Your task to perform on an android device: Open the map Image 0: 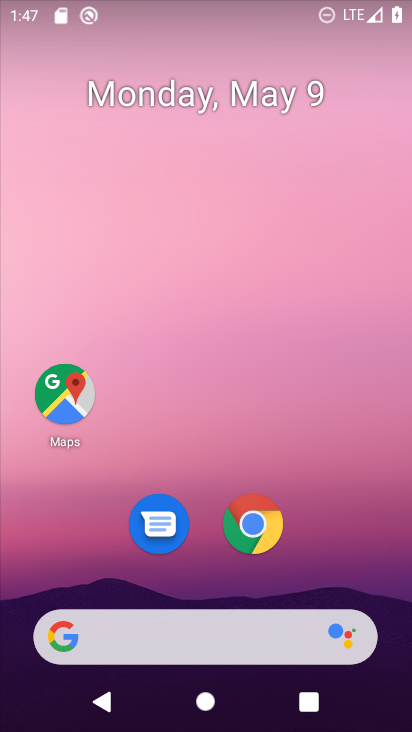
Step 0: click (55, 397)
Your task to perform on an android device: Open the map Image 1: 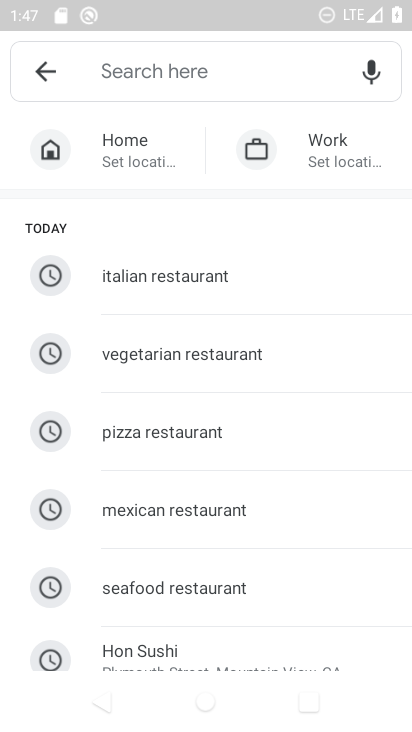
Step 1: task complete